Your task to perform on an android device: Go to display settings Image 0: 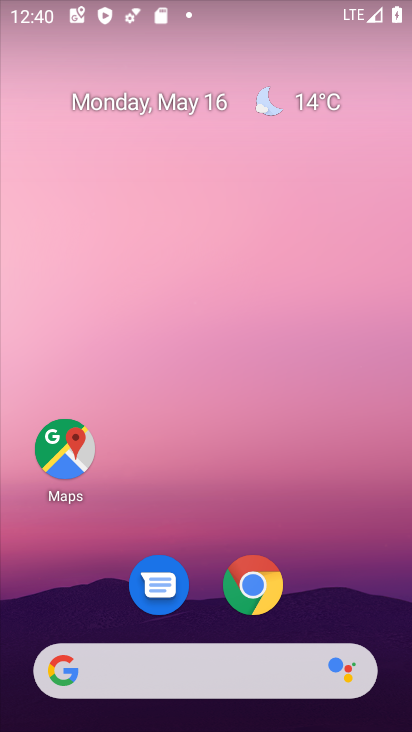
Step 0: drag from (214, 506) to (205, 41)
Your task to perform on an android device: Go to display settings Image 1: 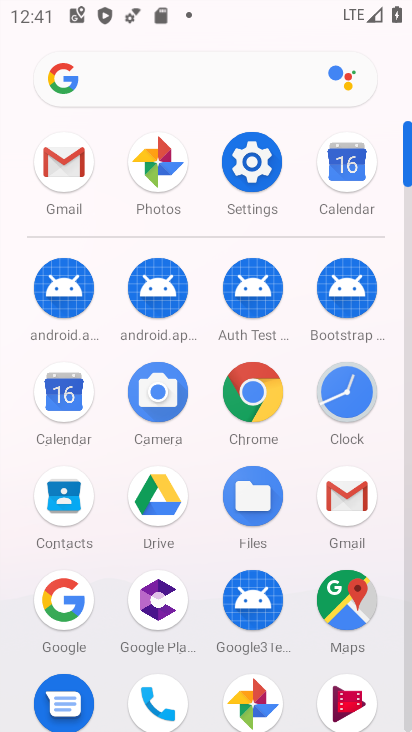
Step 1: click (251, 173)
Your task to perform on an android device: Go to display settings Image 2: 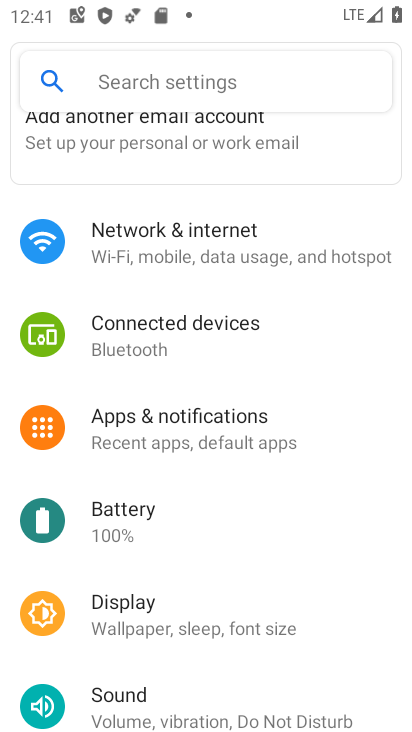
Step 2: click (217, 619)
Your task to perform on an android device: Go to display settings Image 3: 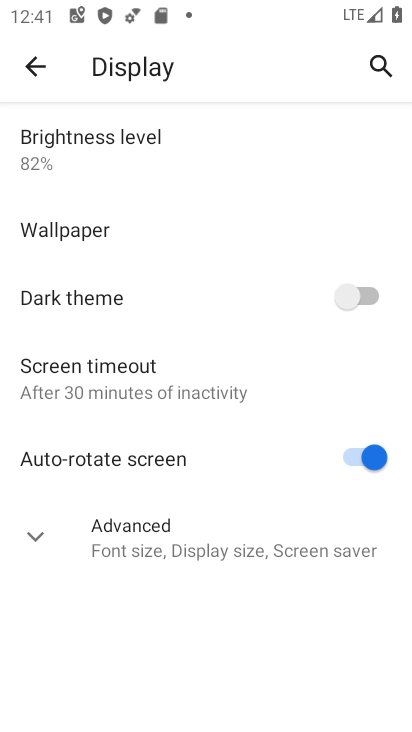
Step 3: task complete